Your task to perform on an android device: Open ESPN.com Image 0: 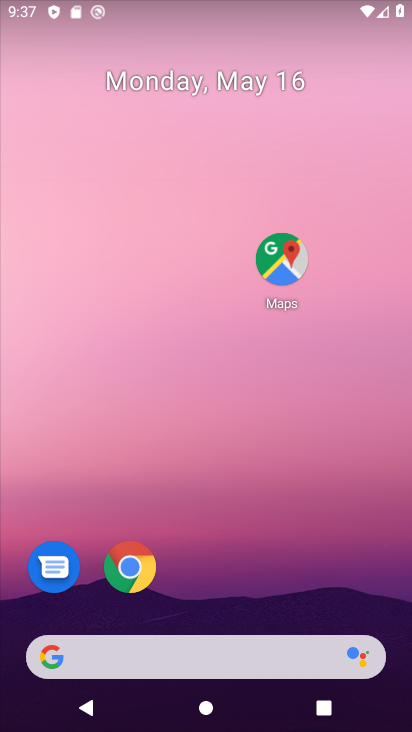
Step 0: drag from (258, 562) to (233, 71)
Your task to perform on an android device: Open ESPN.com Image 1: 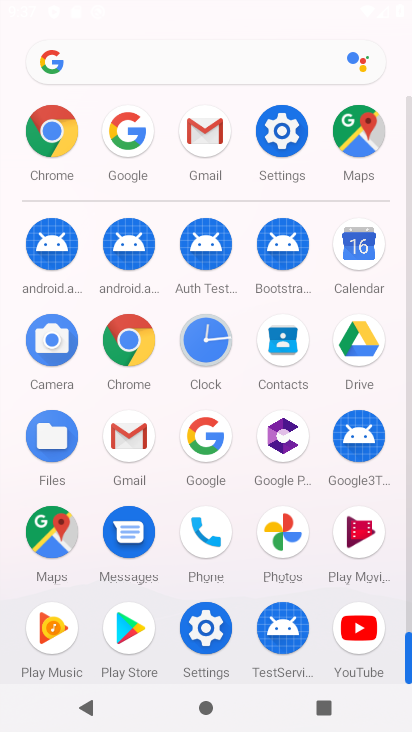
Step 1: click (207, 439)
Your task to perform on an android device: Open ESPN.com Image 2: 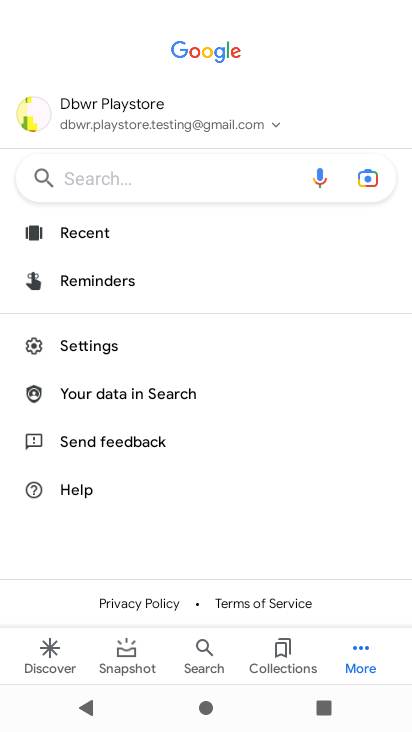
Step 2: press home button
Your task to perform on an android device: Open ESPN.com Image 3: 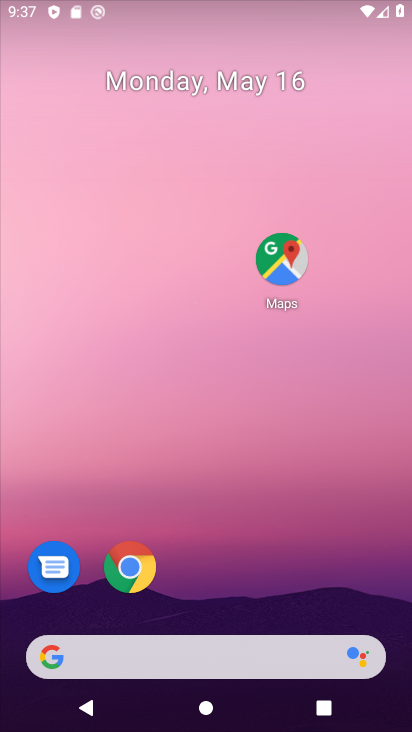
Step 3: drag from (230, 514) to (236, 41)
Your task to perform on an android device: Open ESPN.com Image 4: 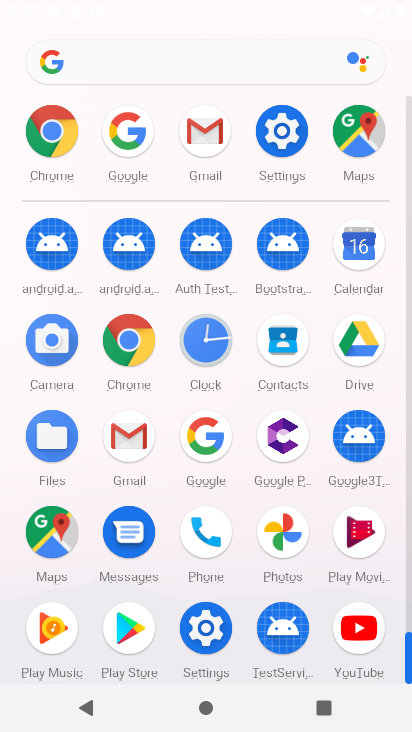
Step 4: click (126, 143)
Your task to perform on an android device: Open ESPN.com Image 5: 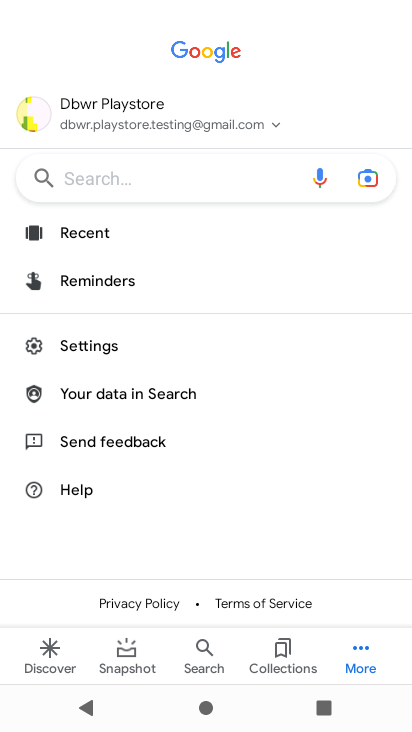
Step 5: press back button
Your task to perform on an android device: Open ESPN.com Image 6: 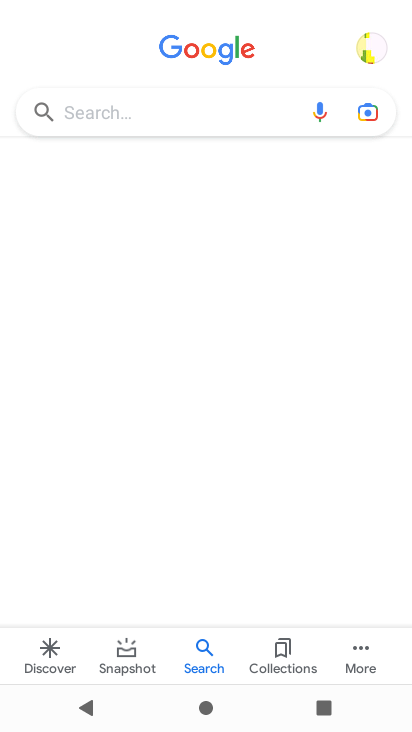
Step 6: click (155, 108)
Your task to perform on an android device: Open ESPN.com Image 7: 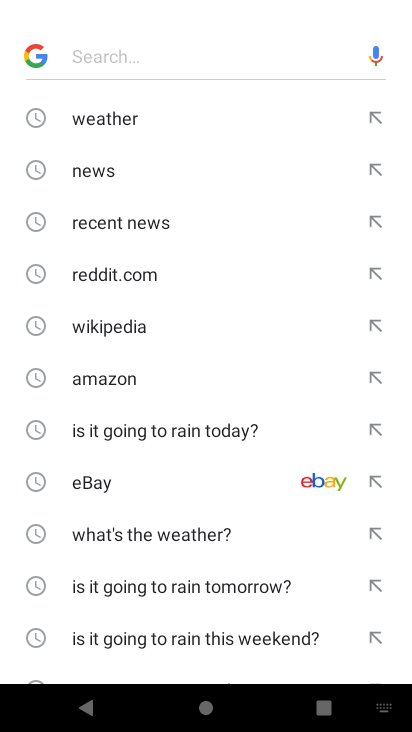
Step 7: drag from (178, 513) to (182, 122)
Your task to perform on an android device: Open ESPN.com Image 8: 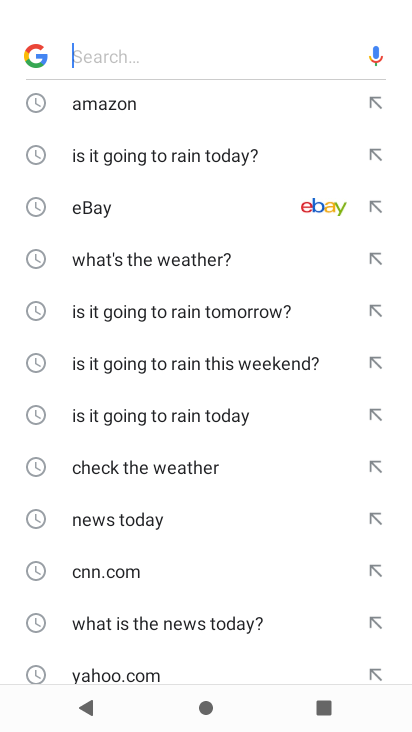
Step 8: drag from (226, 600) to (257, 624)
Your task to perform on an android device: Open ESPN.com Image 9: 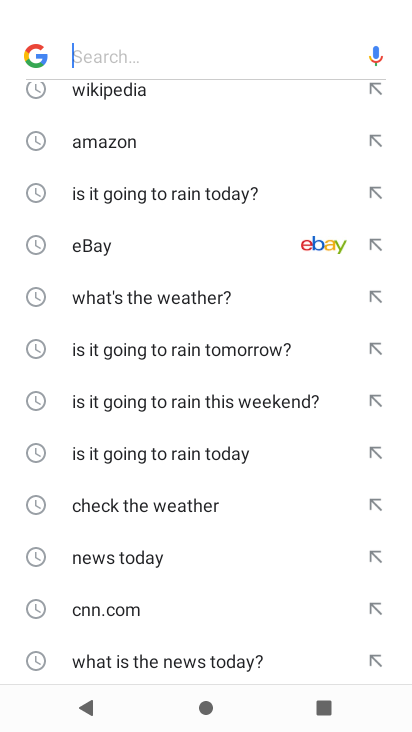
Step 9: drag from (157, 206) to (205, 569)
Your task to perform on an android device: Open ESPN.com Image 10: 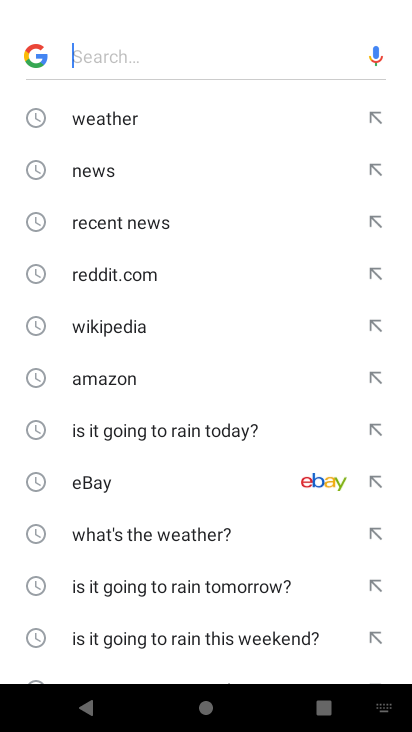
Step 10: click (154, 66)
Your task to perform on an android device: Open ESPN.com Image 11: 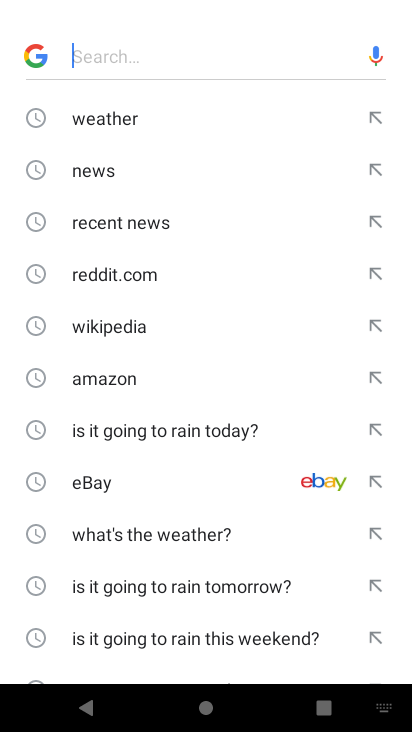
Step 11: type "espn.com"
Your task to perform on an android device: Open ESPN.com Image 12: 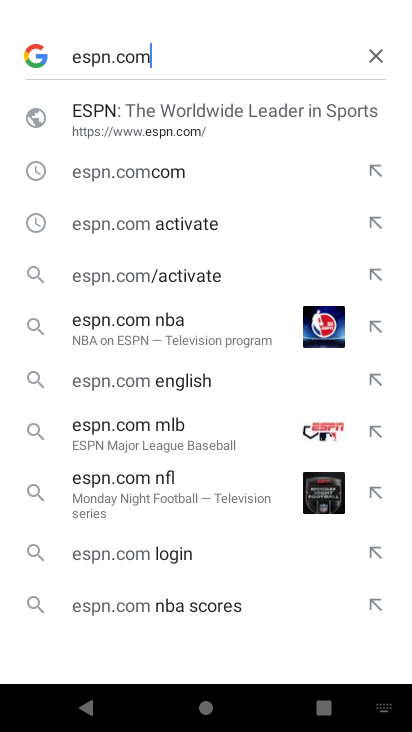
Step 12: task complete